Your task to perform on an android device: Open sound settings Image 0: 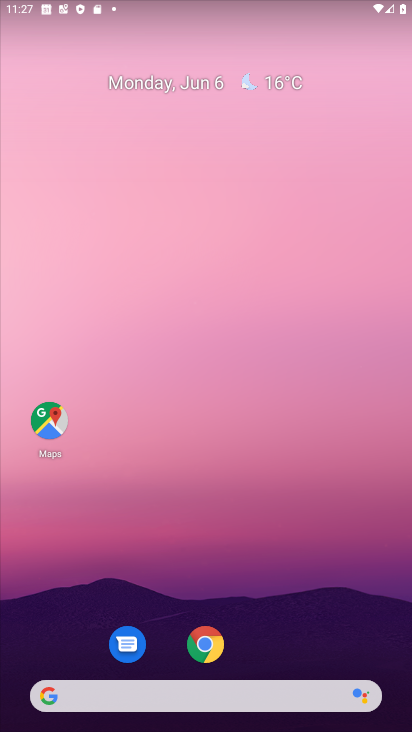
Step 0: drag from (310, 633) to (236, 269)
Your task to perform on an android device: Open sound settings Image 1: 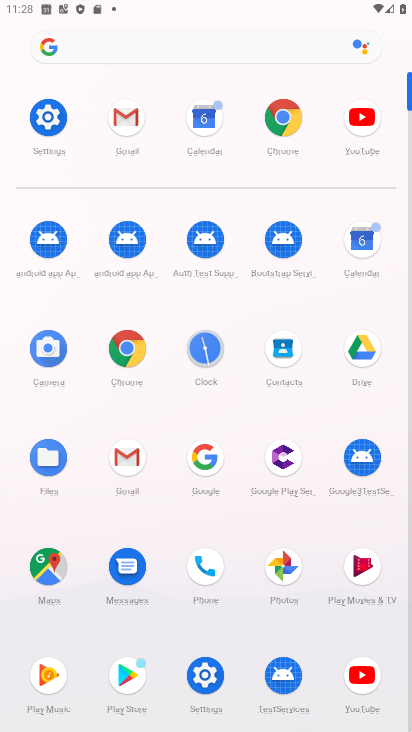
Step 1: click (47, 116)
Your task to perform on an android device: Open sound settings Image 2: 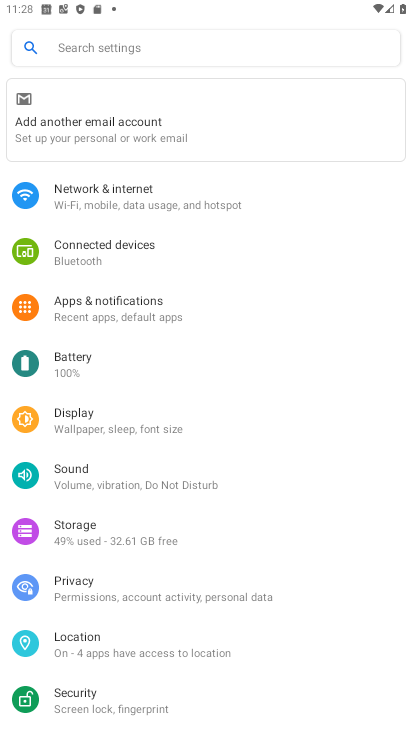
Step 2: click (160, 476)
Your task to perform on an android device: Open sound settings Image 3: 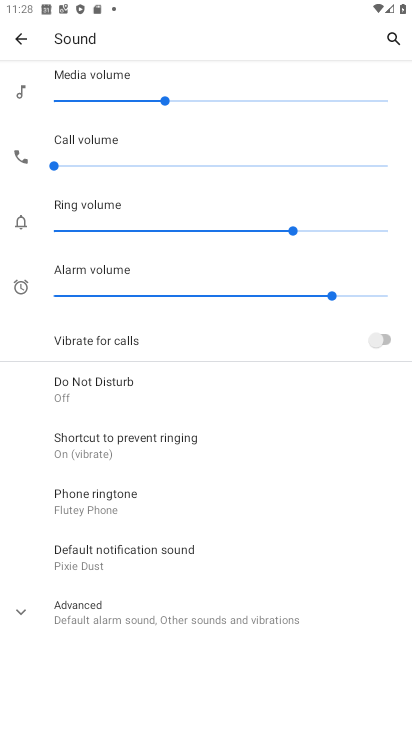
Step 3: task complete